Your task to perform on an android device: turn on the 12-hour format for clock Image 0: 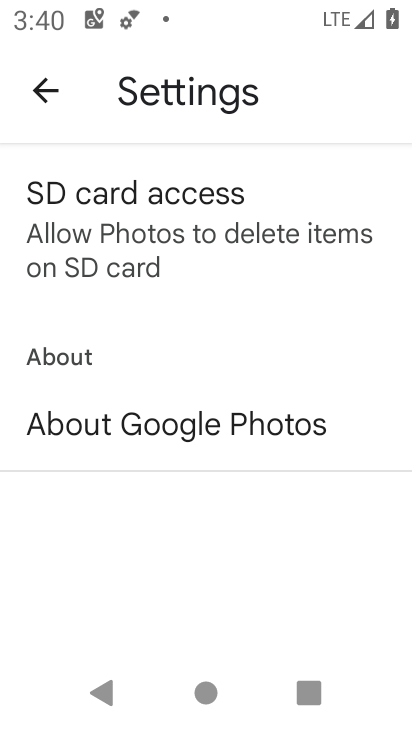
Step 0: press home button
Your task to perform on an android device: turn on the 12-hour format for clock Image 1: 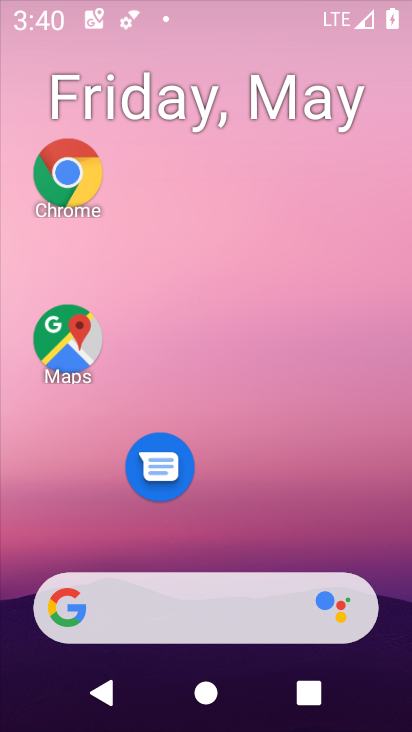
Step 1: drag from (308, 497) to (239, 94)
Your task to perform on an android device: turn on the 12-hour format for clock Image 2: 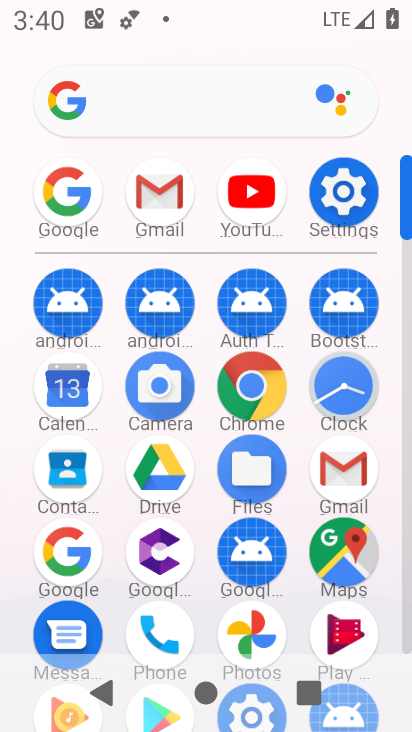
Step 2: click (347, 389)
Your task to perform on an android device: turn on the 12-hour format for clock Image 3: 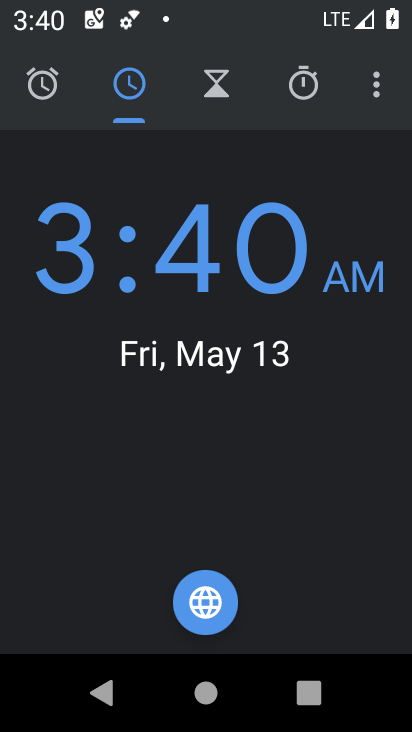
Step 3: click (374, 88)
Your task to perform on an android device: turn on the 12-hour format for clock Image 4: 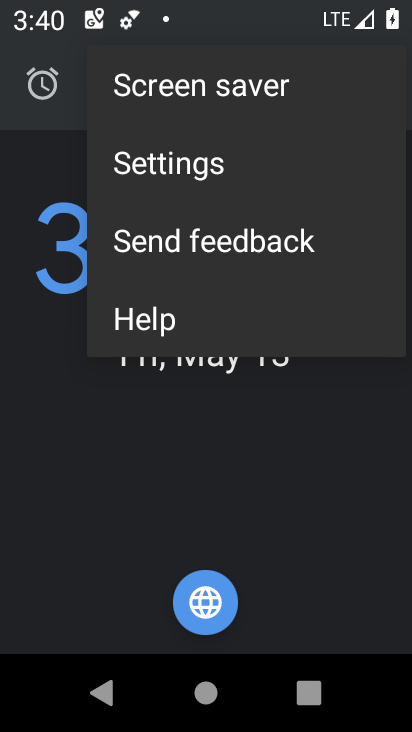
Step 4: click (260, 162)
Your task to perform on an android device: turn on the 12-hour format for clock Image 5: 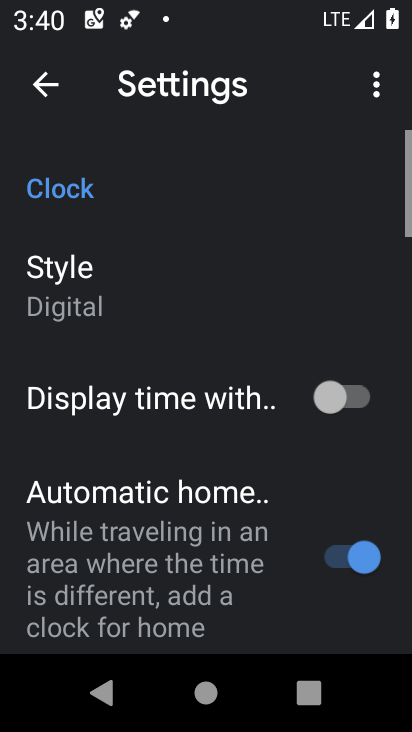
Step 5: drag from (274, 592) to (232, 108)
Your task to perform on an android device: turn on the 12-hour format for clock Image 6: 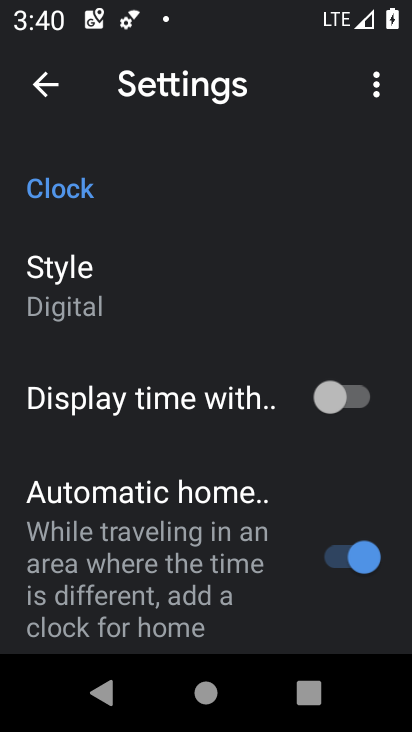
Step 6: drag from (209, 445) to (241, 138)
Your task to perform on an android device: turn on the 12-hour format for clock Image 7: 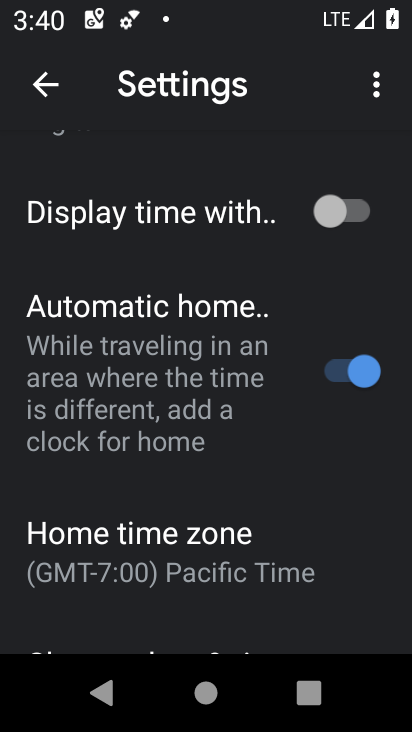
Step 7: drag from (187, 410) to (198, 68)
Your task to perform on an android device: turn on the 12-hour format for clock Image 8: 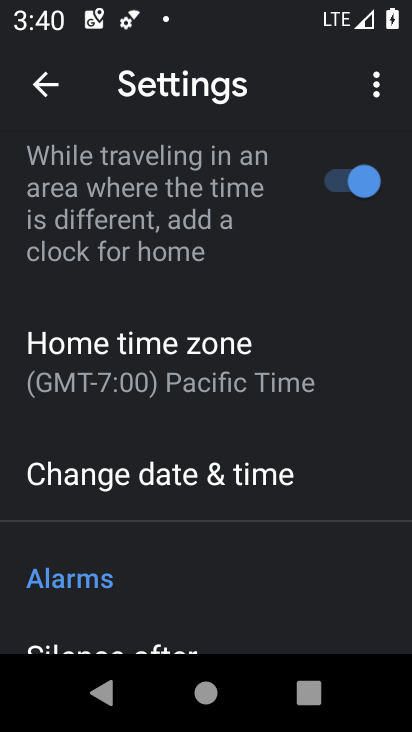
Step 8: click (210, 472)
Your task to perform on an android device: turn on the 12-hour format for clock Image 9: 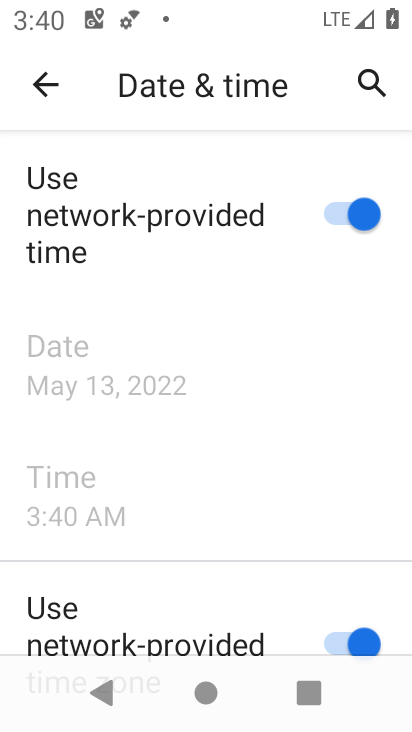
Step 9: task complete